Your task to perform on an android device: set the stopwatch Image 0: 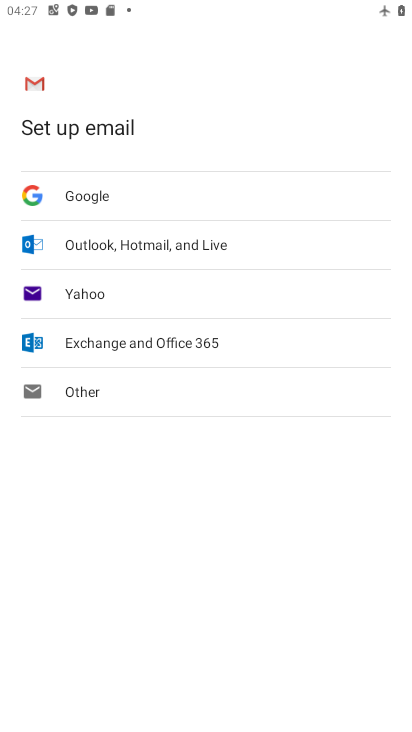
Step 0: press home button
Your task to perform on an android device: set the stopwatch Image 1: 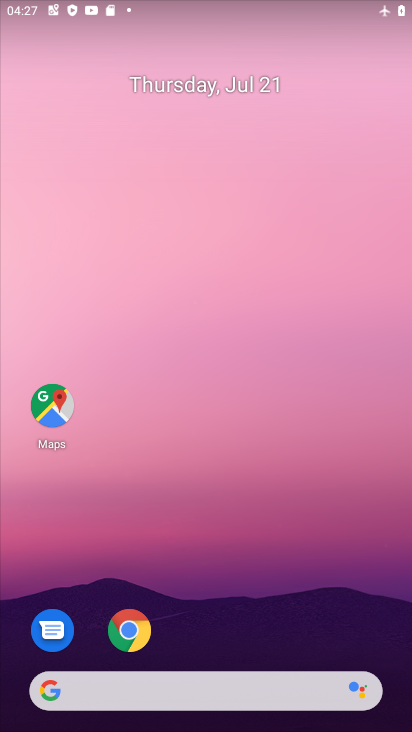
Step 1: drag from (171, 658) to (142, 30)
Your task to perform on an android device: set the stopwatch Image 2: 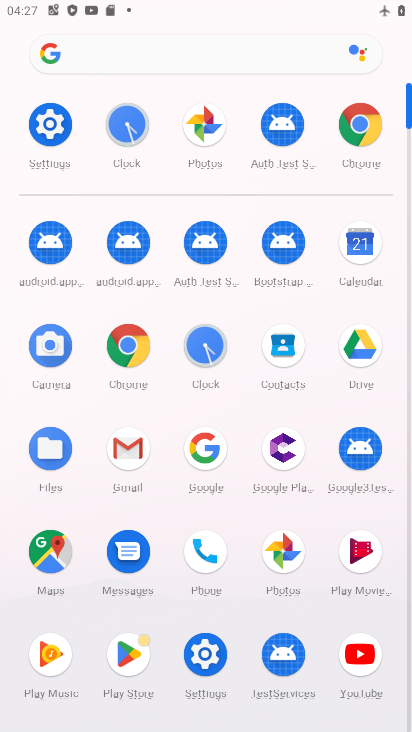
Step 2: click (113, 138)
Your task to perform on an android device: set the stopwatch Image 3: 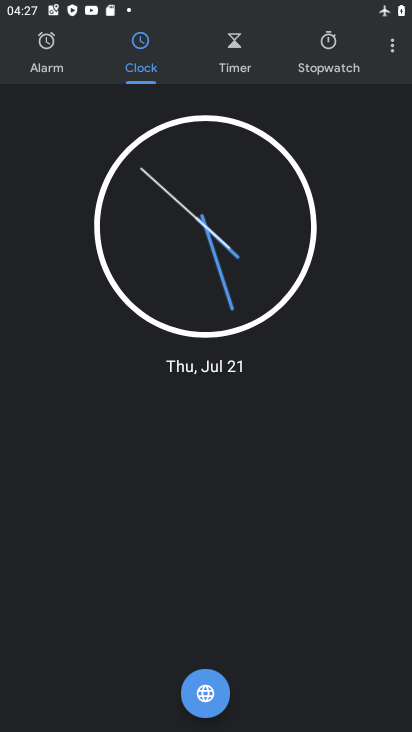
Step 3: click (353, 43)
Your task to perform on an android device: set the stopwatch Image 4: 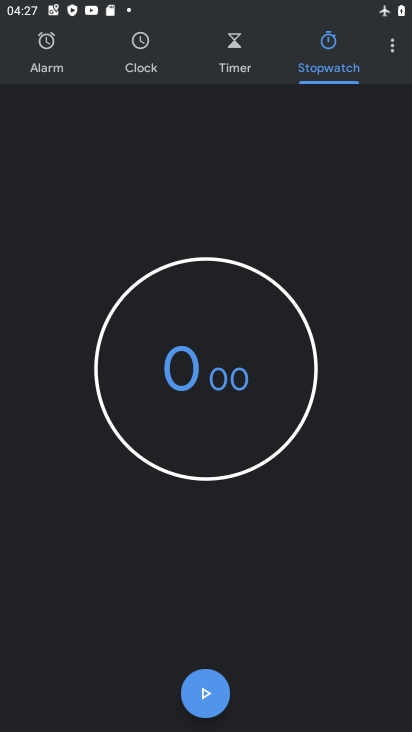
Step 4: click (208, 688)
Your task to perform on an android device: set the stopwatch Image 5: 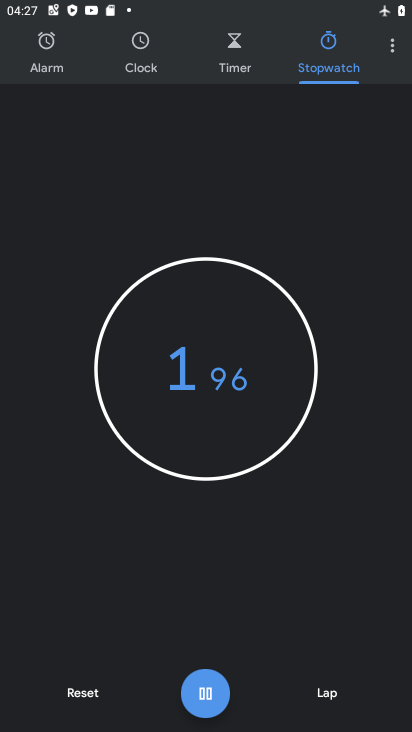
Step 5: task complete